Your task to perform on an android device: change notifications settings Image 0: 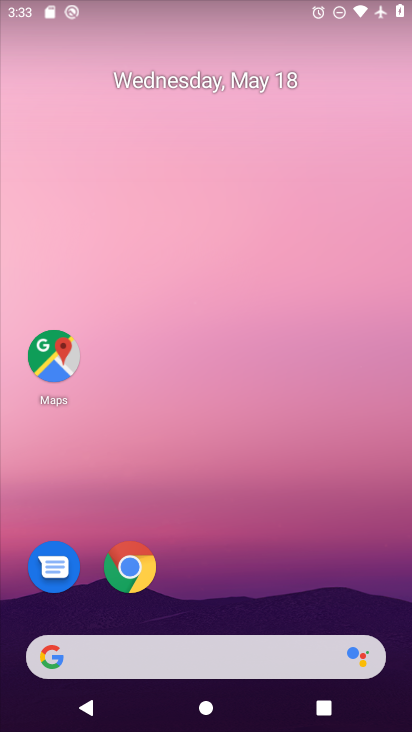
Step 0: drag from (314, 586) to (279, 240)
Your task to perform on an android device: change notifications settings Image 1: 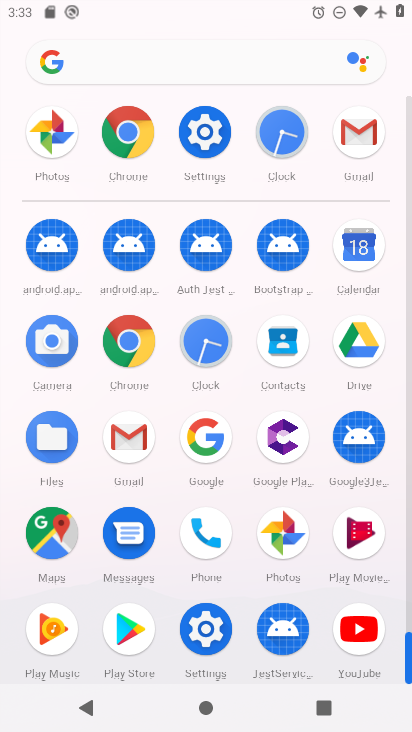
Step 1: click (202, 133)
Your task to perform on an android device: change notifications settings Image 2: 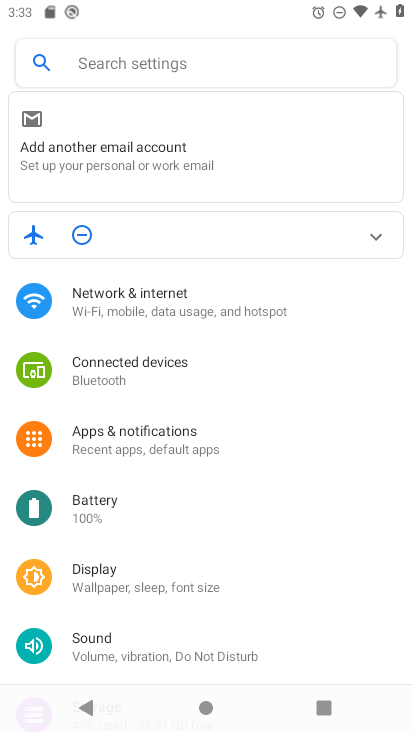
Step 2: click (149, 447)
Your task to perform on an android device: change notifications settings Image 3: 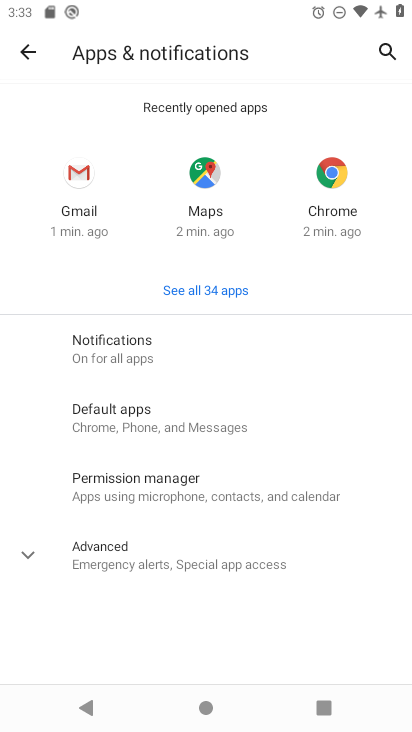
Step 3: click (145, 347)
Your task to perform on an android device: change notifications settings Image 4: 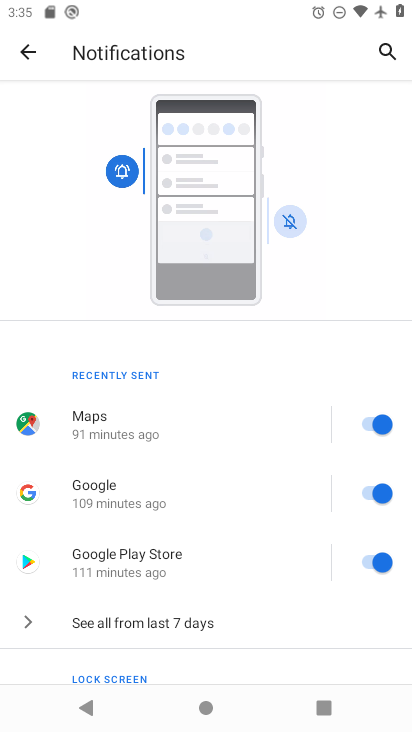
Step 4: task complete